Your task to perform on an android device: see tabs open on other devices in the chrome app Image 0: 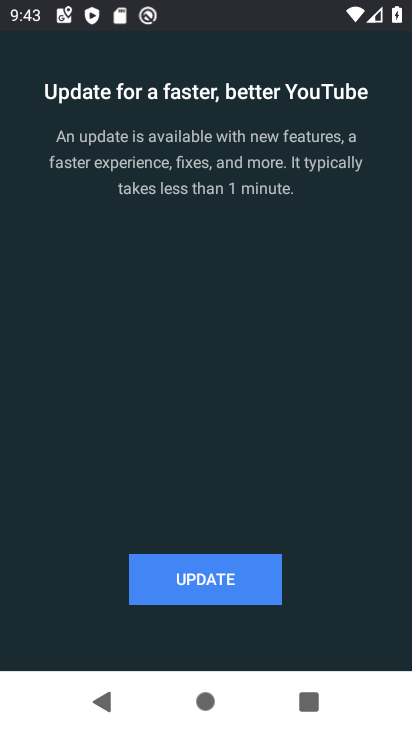
Step 0: press home button
Your task to perform on an android device: see tabs open on other devices in the chrome app Image 1: 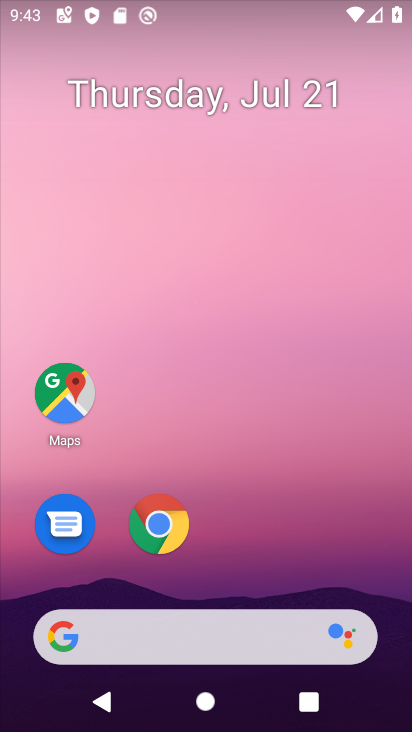
Step 1: click (163, 519)
Your task to perform on an android device: see tabs open on other devices in the chrome app Image 2: 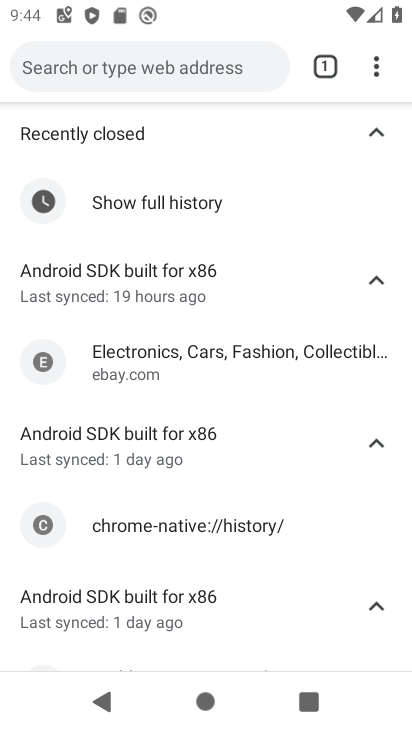
Step 2: task complete